Your task to perform on an android device: open app "Chime – Mobile Banking" (install if not already installed) and enter user name: "bullfrog@inbox.com" and password: "breaker" Image 0: 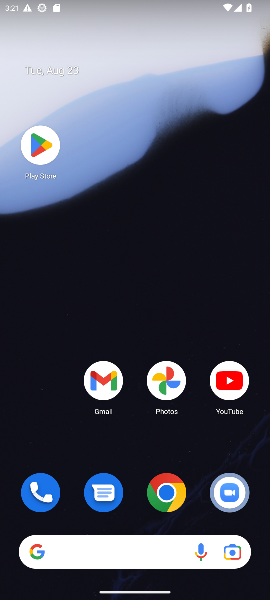
Step 0: click (42, 153)
Your task to perform on an android device: open app "Chime – Mobile Banking" (install if not already installed) and enter user name: "bullfrog@inbox.com" and password: "breaker" Image 1: 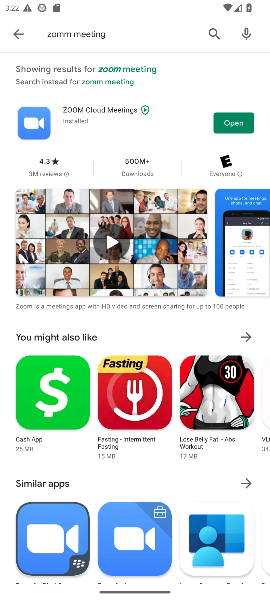
Step 1: click (207, 27)
Your task to perform on an android device: open app "Chime – Mobile Banking" (install if not already installed) and enter user name: "bullfrog@inbox.com" and password: "breaker" Image 2: 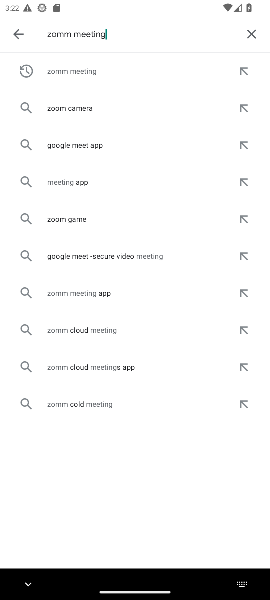
Step 2: click (254, 31)
Your task to perform on an android device: open app "Chime – Mobile Banking" (install if not already installed) and enter user name: "bullfrog@inbox.com" and password: "breaker" Image 3: 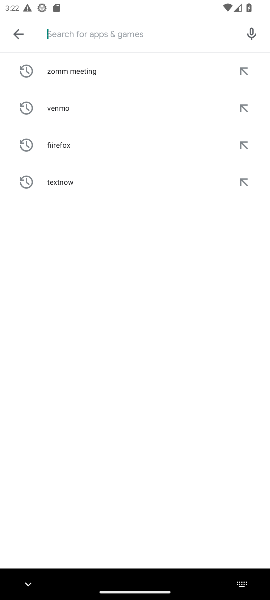
Step 3: type "chime "
Your task to perform on an android device: open app "Chime – Mobile Banking" (install if not already installed) and enter user name: "bullfrog@inbox.com" and password: "breaker" Image 4: 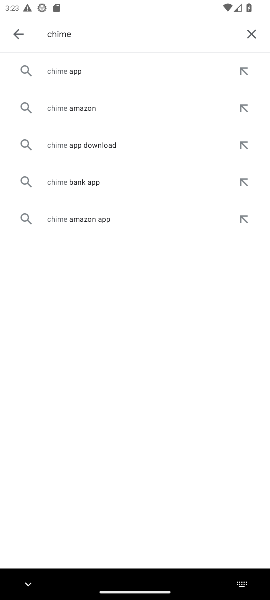
Step 4: click (156, 65)
Your task to perform on an android device: open app "Chime – Mobile Banking" (install if not already installed) and enter user name: "bullfrog@inbox.com" and password: "breaker" Image 5: 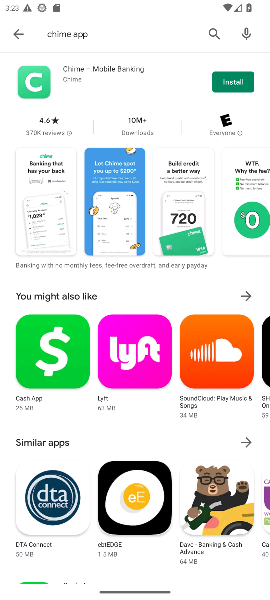
Step 5: click (225, 79)
Your task to perform on an android device: open app "Chime – Mobile Banking" (install if not already installed) and enter user name: "bullfrog@inbox.com" and password: "breaker" Image 6: 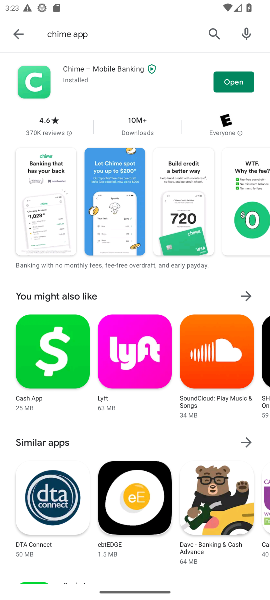
Step 6: click (232, 85)
Your task to perform on an android device: open app "Chime – Mobile Banking" (install if not already installed) and enter user name: "bullfrog@inbox.com" and password: "breaker" Image 7: 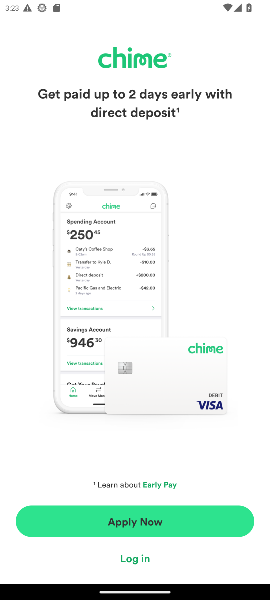
Step 7: click (127, 559)
Your task to perform on an android device: open app "Chime – Mobile Banking" (install if not already installed) and enter user name: "bullfrog@inbox.com" and password: "breaker" Image 8: 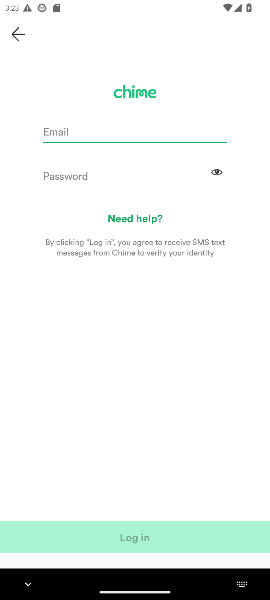
Step 8: type "bullfrog@inbox.com"
Your task to perform on an android device: open app "Chime – Mobile Banking" (install if not already installed) and enter user name: "bullfrog@inbox.com" and password: "breaker" Image 9: 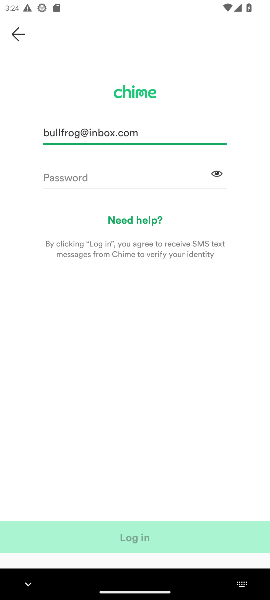
Step 9: click (113, 169)
Your task to perform on an android device: open app "Chime – Mobile Banking" (install if not already installed) and enter user name: "bullfrog@inbox.com" and password: "breaker" Image 10: 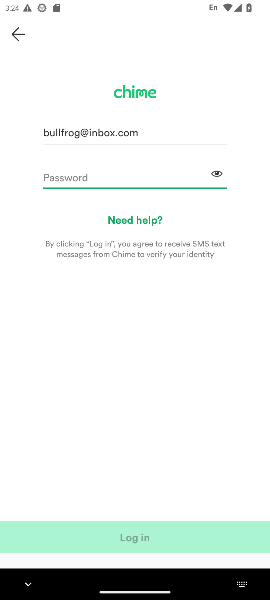
Step 10: type "breaker"
Your task to perform on an android device: open app "Chime – Mobile Banking" (install if not already installed) and enter user name: "bullfrog@inbox.com" and password: "breaker" Image 11: 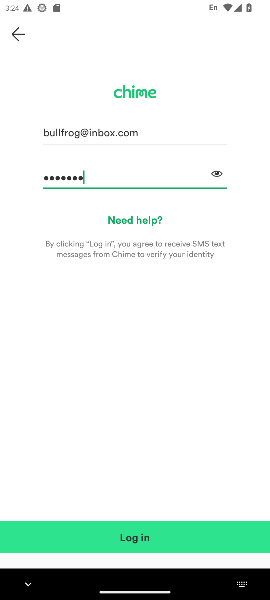
Step 11: click (180, 536)
Your task to perform on an android device: open app "Chime – Mobile Banking" (install if not already installed) and enter user name: "bullfrog@inbox.com" and password: "breaker" Image 12: 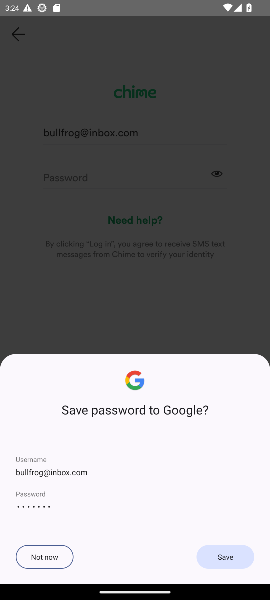
Step 12: click (218, 557)
Your task to perform on an android device: open app "Chime – Mobile Banking" (install if not already installed) and enter user name: "bullfrog@inbox.com" and password: "breaker" Image 13: 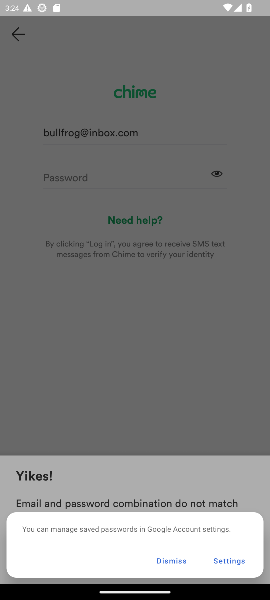
Step 13: task complete